Your task to perform on an android device: turn on bluetooth scan Image 0: 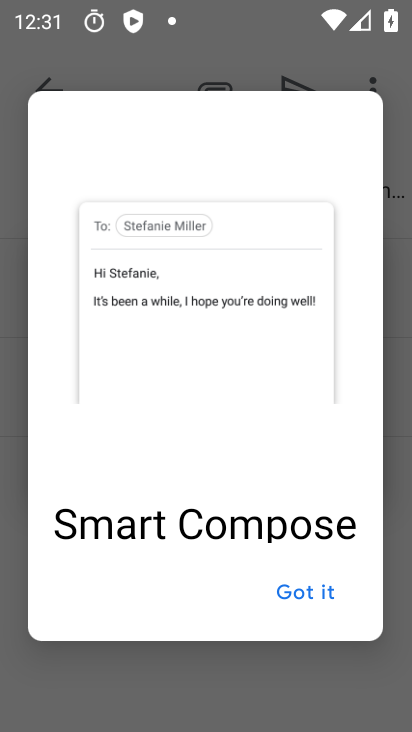
Step 0: press back button
Your task to perform on an android device: turn on bluetooth scan Image 1: 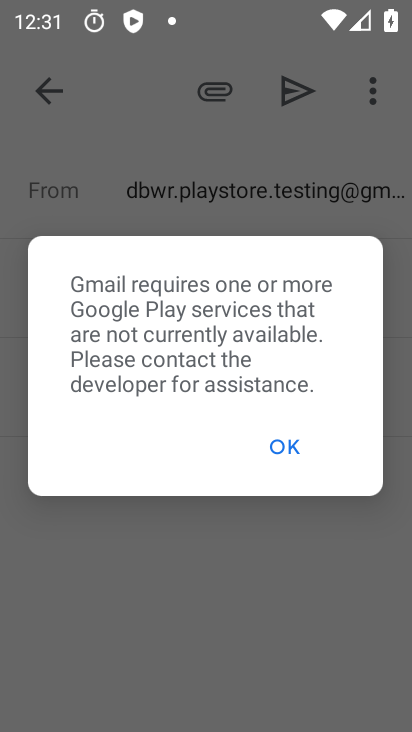
Step 1: press back button
Your task to perform on an android device: turn on bluetooth scan Image 2: 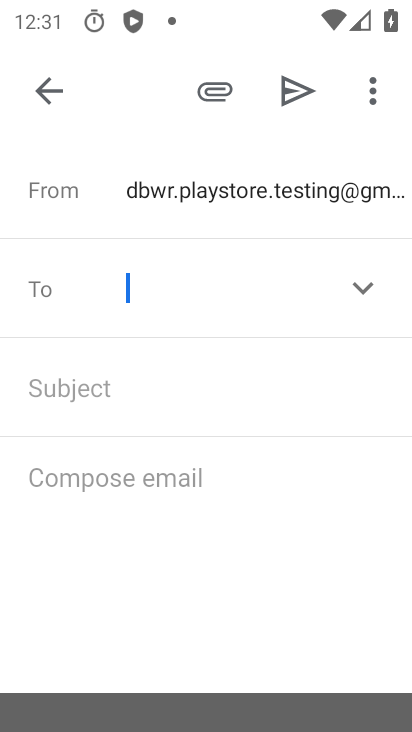
Step 2: press home button
Your task to perform on an android device: turn on bluetooth scan Image 3: 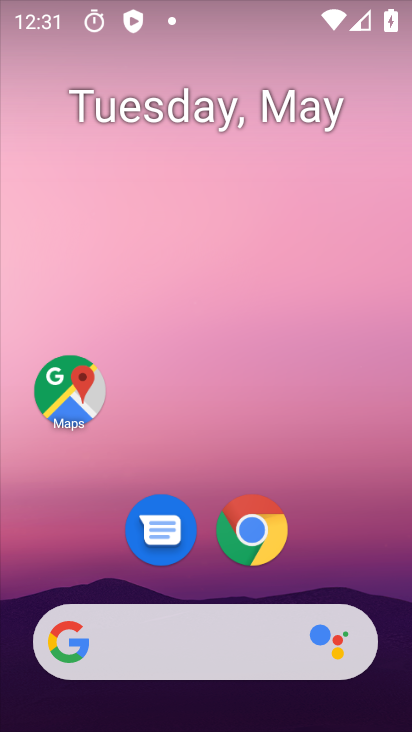
Step 3: drag from (320, 445) to (236, 1)
Your task to perform on an android device: turn on bluetooth scan Image 4: 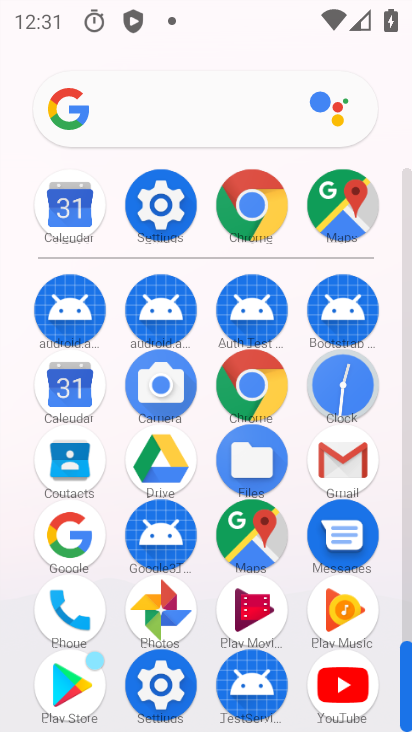
Step 4: click (157, 200)
Your task to perform on an android device: turn on bluetooth scan Image 5: 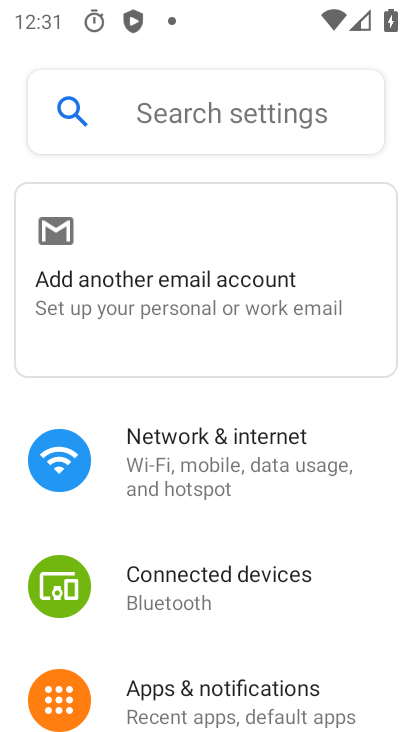
Step 5: click (340, 137)
Your task to perform on an android device: turn on bluetooth scan Image 6: 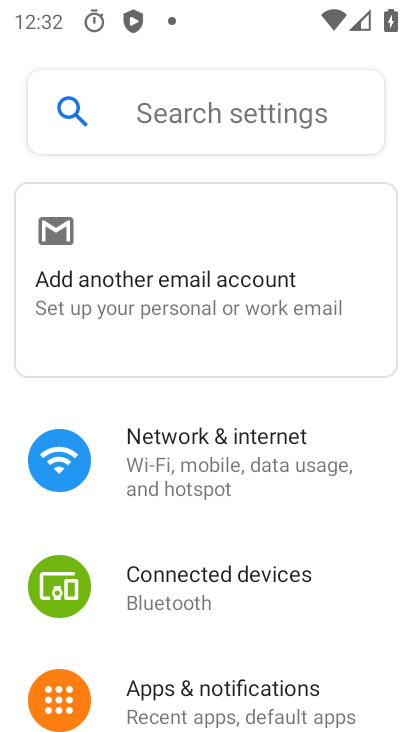
Step 6: drag from (336, 567) to (335, 211)
Your task to perform on an android device: turn on bluetooth scan Image 7: 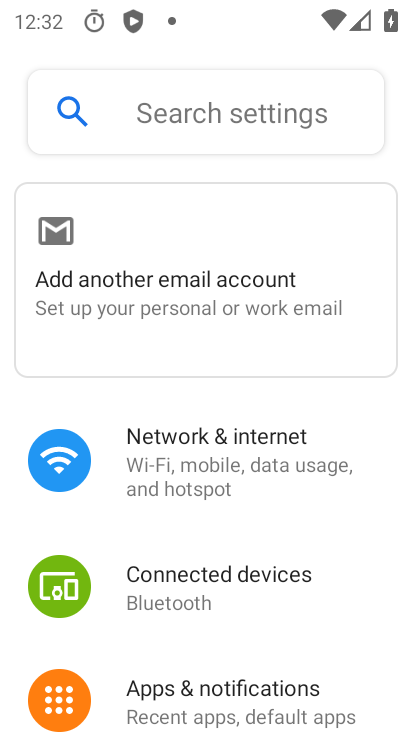
Step 7: drag from (350, 569) to (348, 203)
Your task to perform on an android device: turn on bluetooth scan Image 8: 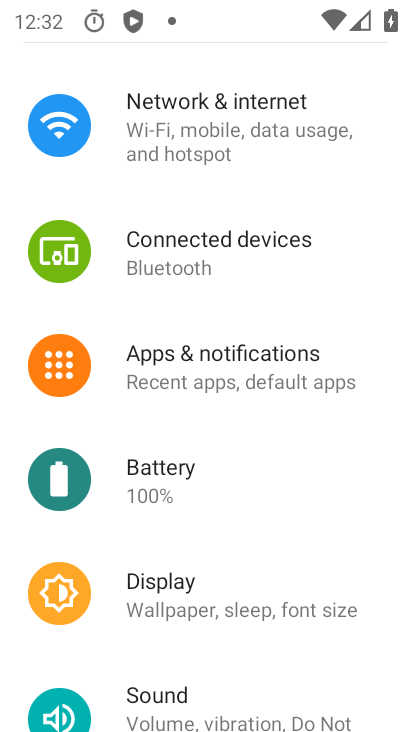
Step 8: drag from (368, 536) to (348, 175)
Your task to perform on an android device: turn on bluetooth scan Image 9: 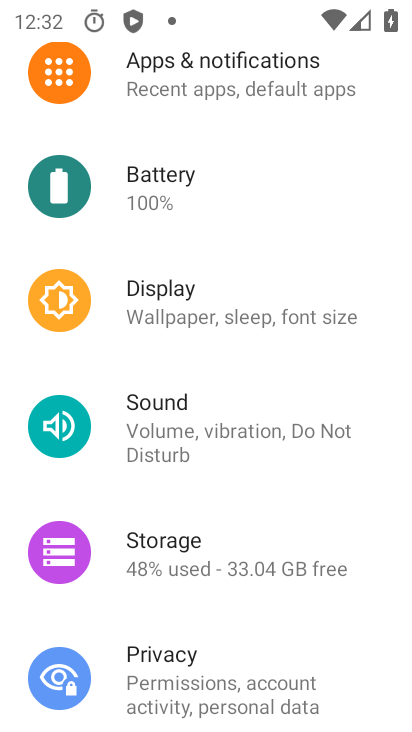
Step 9: drag from (339, 595) to (340, 231)
Your task to perform on an android device: turn on bluetooth scan Image 10: 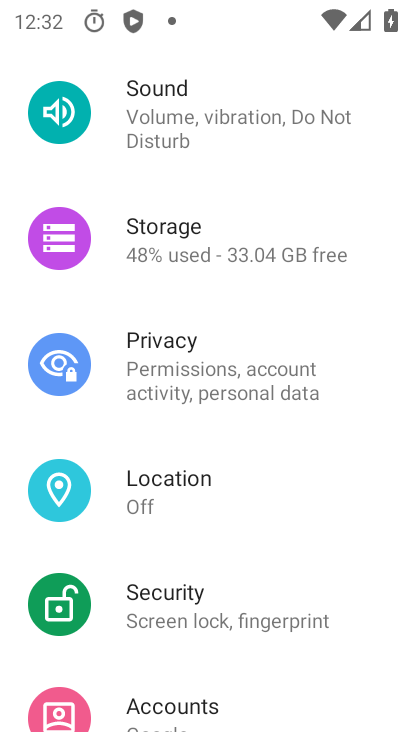
Step 10: drag from (336, 573) to (332, 252)
Your task to perform on an android device: turn on bluetooth scan Image 11: 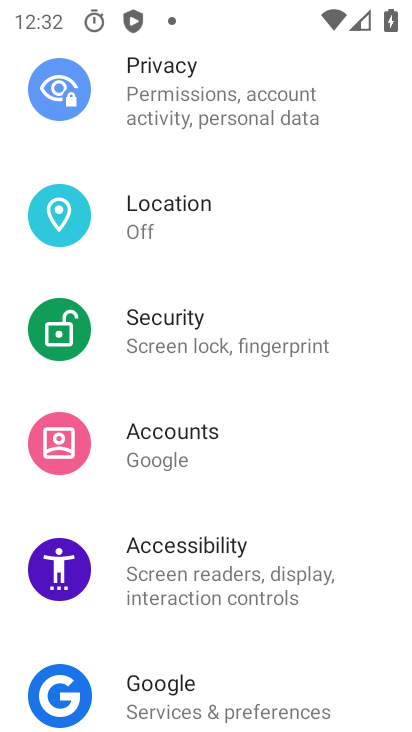
Step 11: drag from (320, 584) to (290, 185)
Your task to perform on an android device: turn on bluetooth scan Image 12: 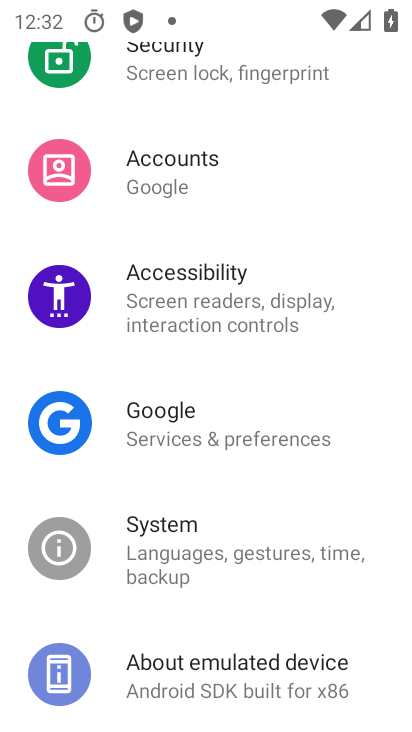
Step 12: drag from (289, 230) to (295, 631)
Your task to perform on an android device: turn on bluetooth scan Image 13: 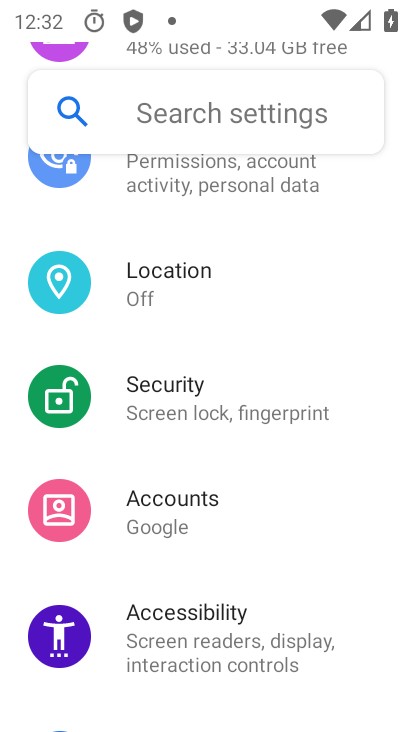
Step 13: drag from (293, 245) to (293, 525)
Your task to perform on an android device: turn on bluetooth scan Image 14: 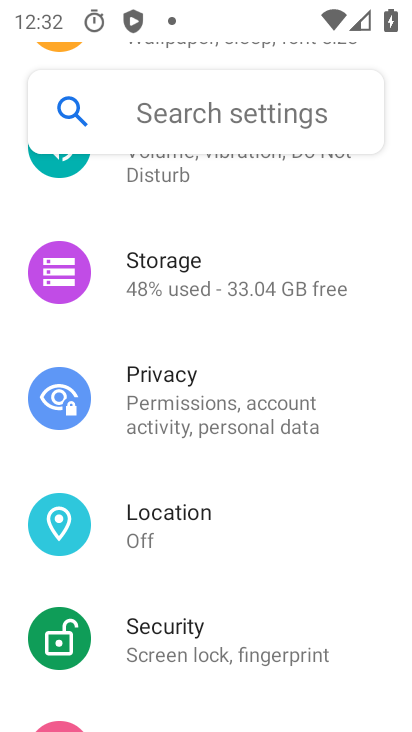
Step 14: drag from (279, 623) to (271, 369)
Your task to perform on an android device: turn on bluetooth scan Image 15: 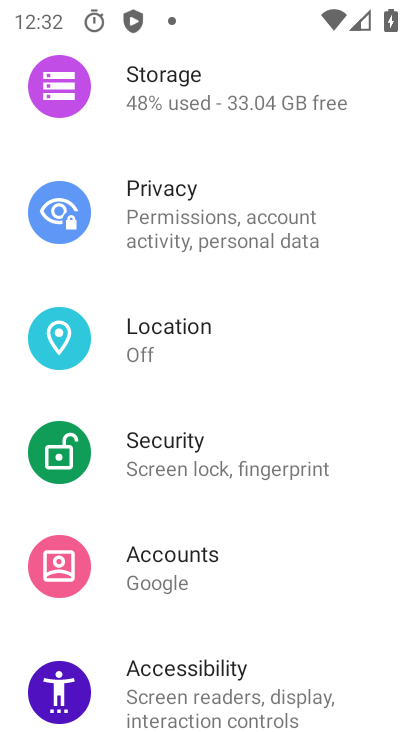
Step 15: click (211, 340)
Your task to perform on an android device: turn on bluetooth scan Image 16: 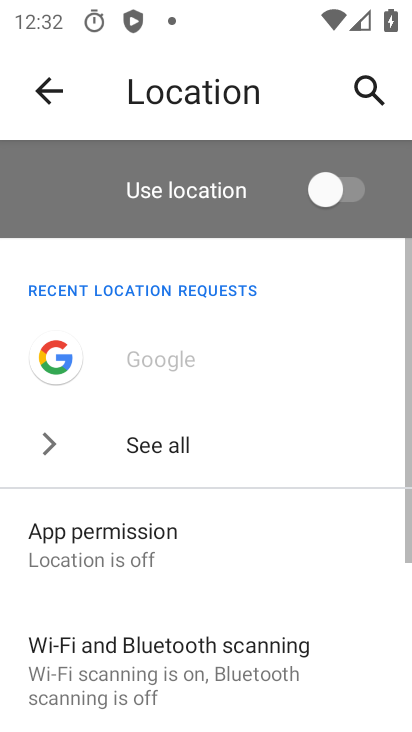
Step 16: drag from (256, 580) to (215, 150)
Your task to perform on an android device: turn on bluetooth scan Image 17: 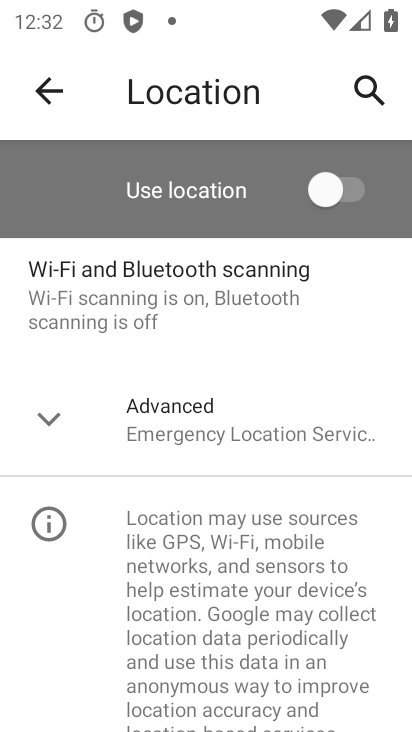
Step 17: click (279, 437)
Your task to perform on an android device: turn on bluetooth scan Image 18: 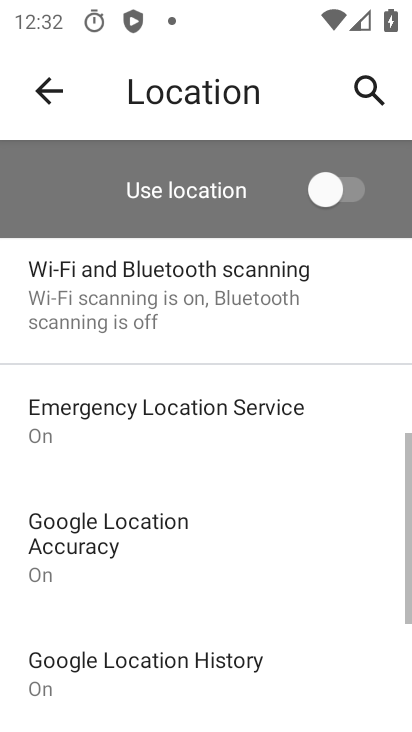
Step 18: drag from (269, 654) to (200, 162)
Your task to perform on an android device: turn on bluetooth scan Image 19: 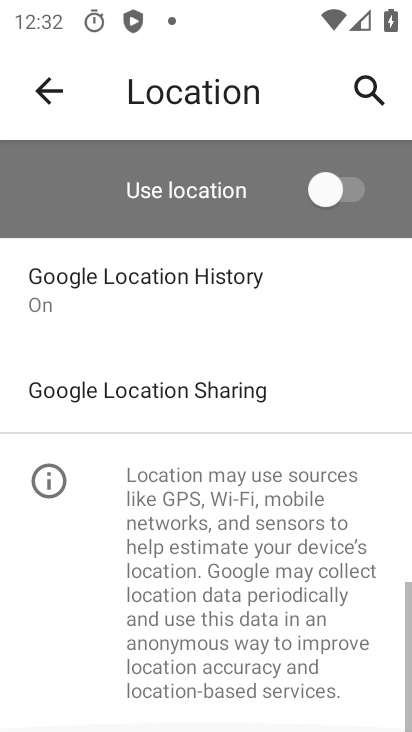
Step 19: click (228, 194)
Your task to perform on an android device: turn on bluetooth scan Image 20: 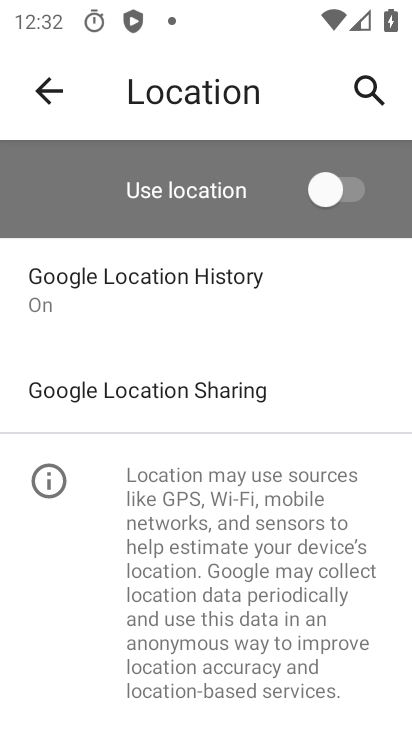
Step 20: click (297, 680)
Your task to perform on an android device: turn on bluetooth scan Image 21: 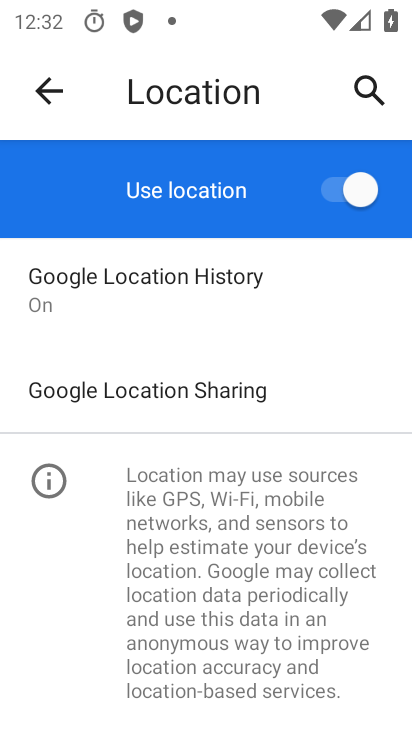
Step 21: drag from (287, 278) to (283, 593)
Your task to perform on an android device: turn on bluetooth scan Image 22: 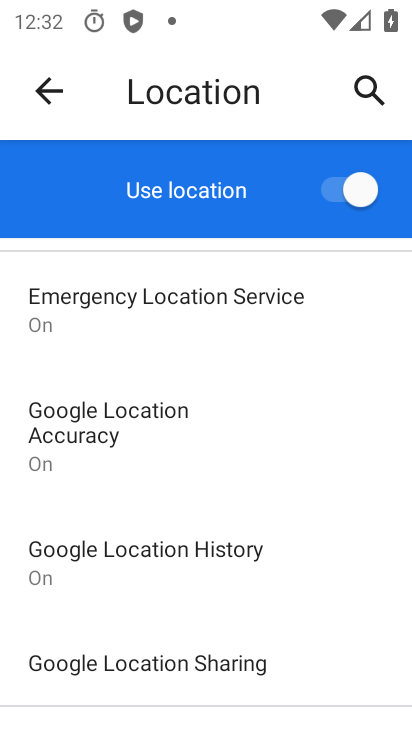
Step 22: drag from (278, 336) to (295, 664)
Your task to perform on an android device: turn on bluetooth scan Image 23: 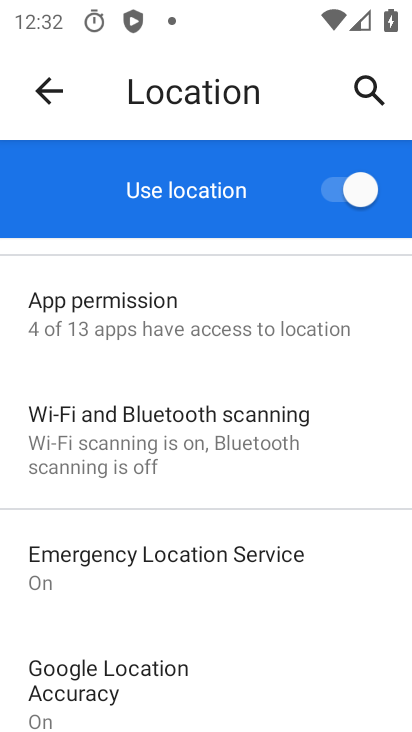
Step 23: click (261, 451)
Your task to perform on an android device: turn on bluetooth scan Image 24: 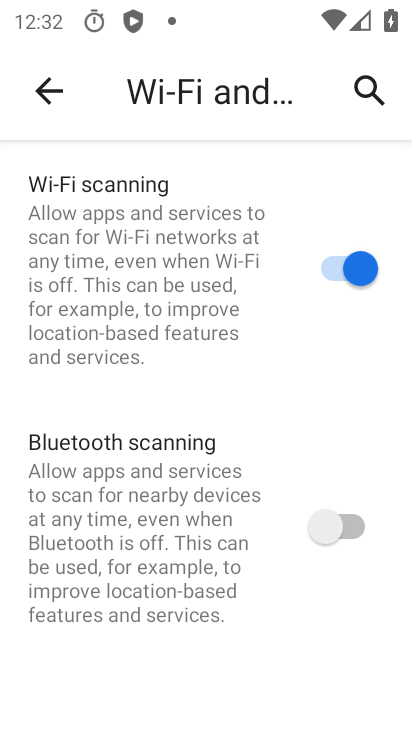
Step 24: click (324, 534)
Your task to perform on an android device: turn on bluetooth scan Image 25: 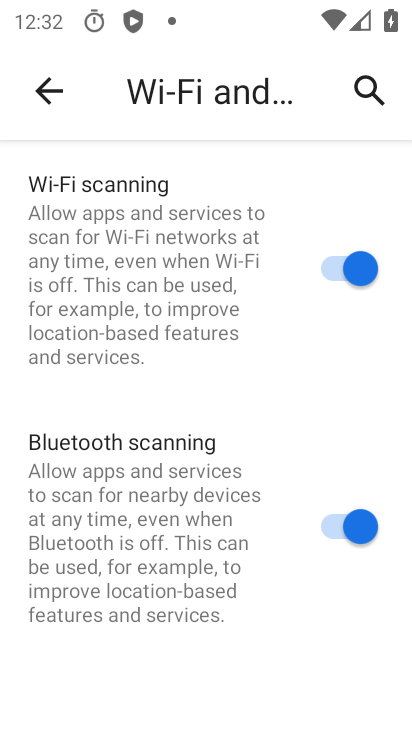
Step 25: task complete